Your task to perform on an android device: Empty the shopping cart on newegg. Search for macbook pro on newegg, select the first entry, add it to the cart, then select checkout. Image 0: 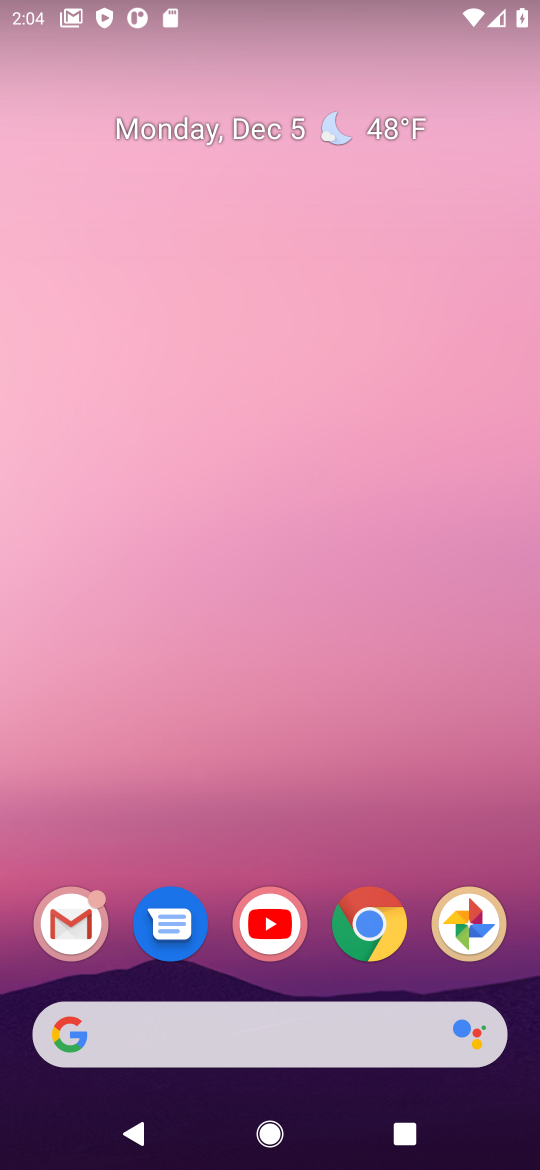
Step 0: click (351, 1042)
Your task to perform on an android device: Empty the shopping cart on newegg. Search for macbook pro on newegg, select the first entry, add it to the cart, then select checkout. Image 1: 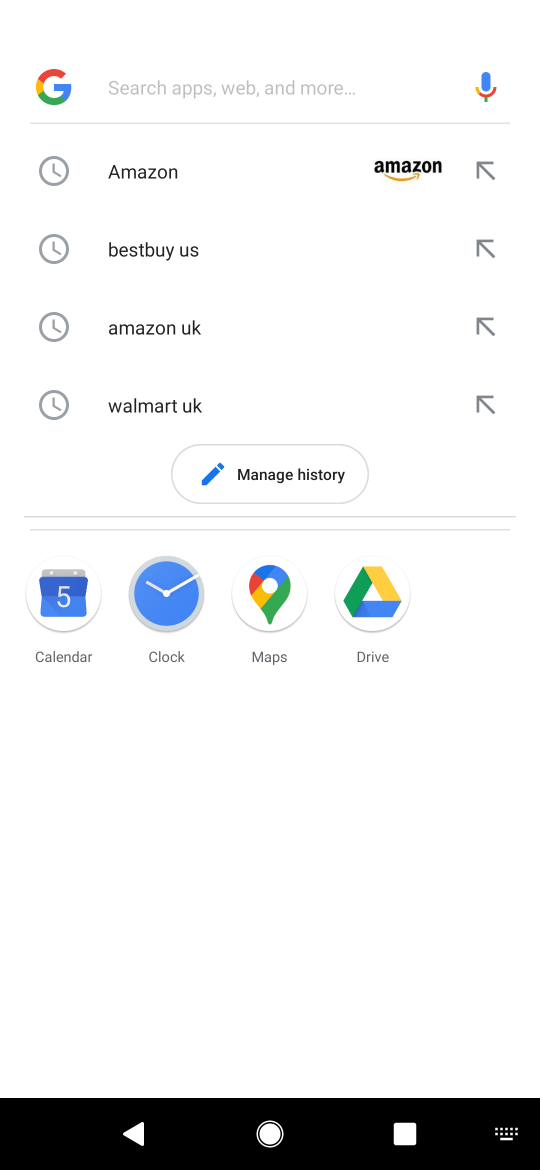
Step 1: type "newegg"
Your task to perform on an android device: Empty the shopping cart on newegg. Search for macbook pro on newegg, select the first entry, add it to the cart, then select checkout. Image 2: 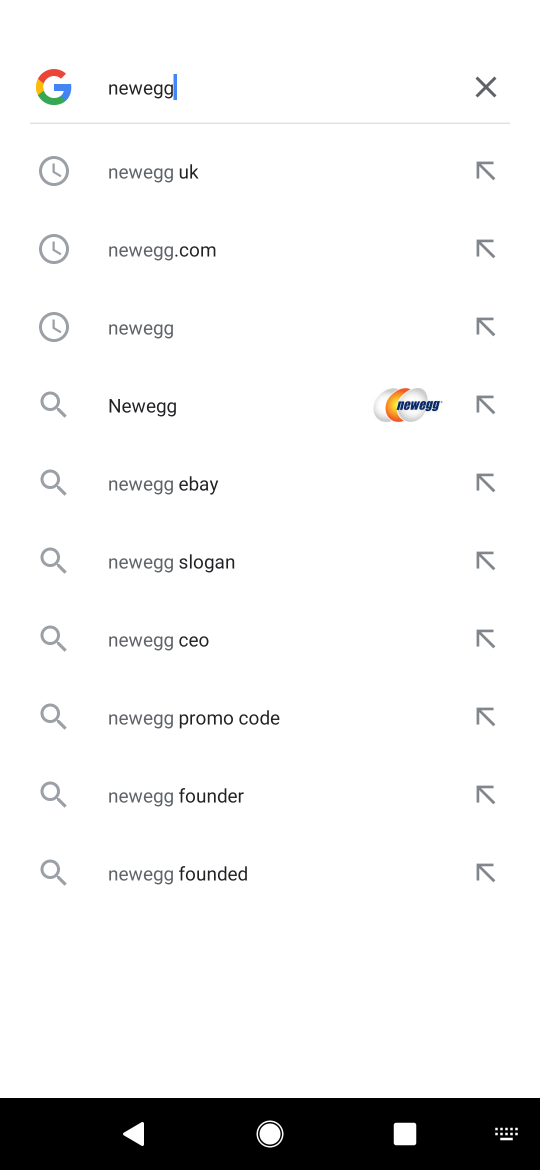
Step 2: click (274, 260)
Your task to perform on an android device: Empty the shopping cart on newegg. Search for macbook pro on newegg, select the first entry, add it to the cart, then select checkout. Image 3: 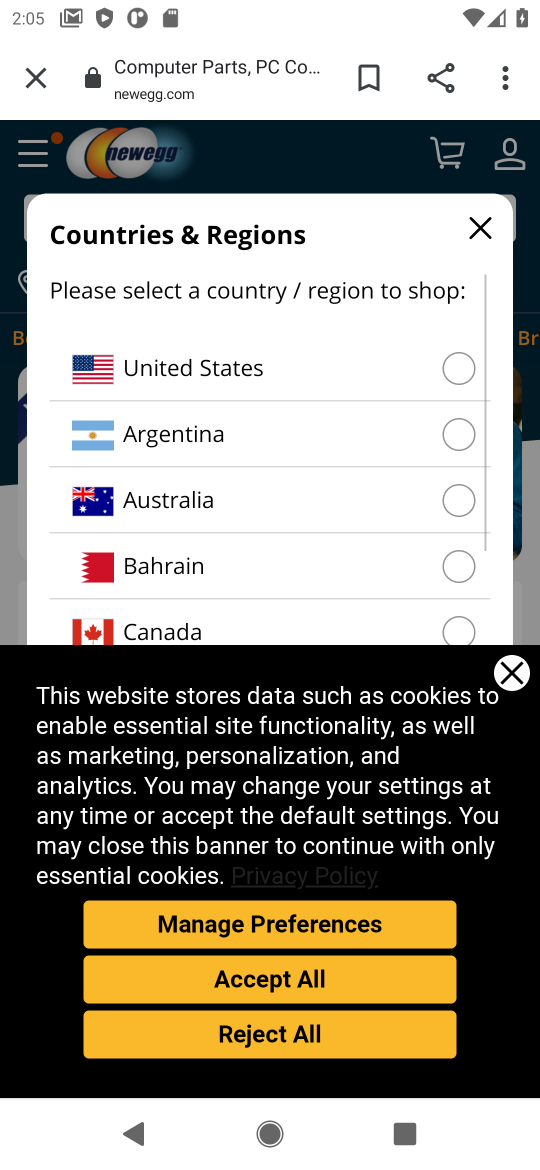
Step 3: click (294, 358)
Your task to perform on an android device: Empty the shopping cart on newegg. Search for macbook pro on newegg, select the first entry, add it to the cart, then select checkout. Image 4: 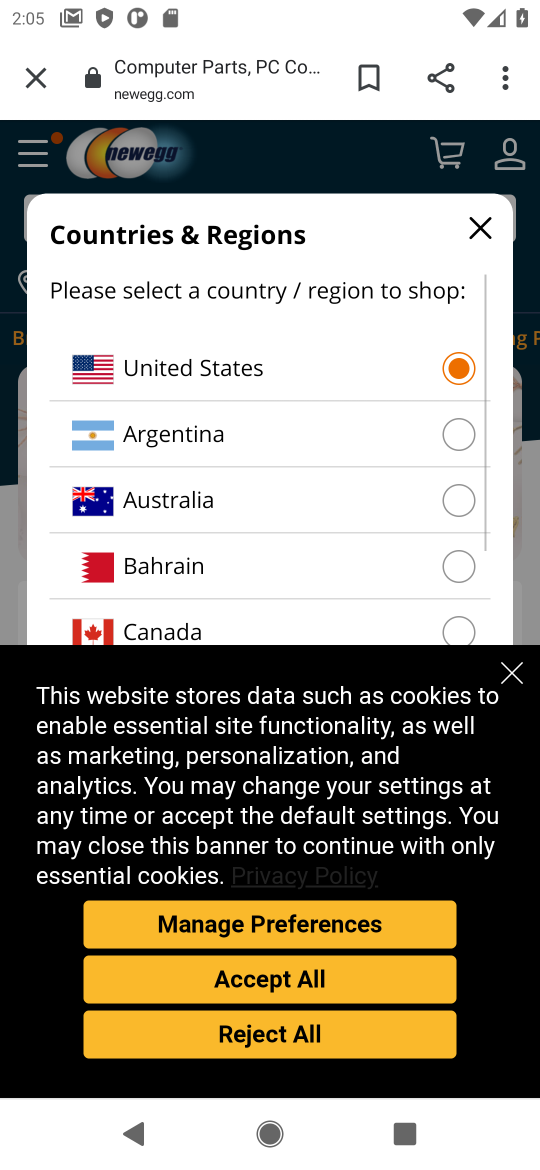
Step 4: click (370, 981)
Your task to perform on an android device: Empty the shopping cart on newegg. Search for macbook pro on newegg, select the first entry, add it to the cart, then select checkout. Image 5: 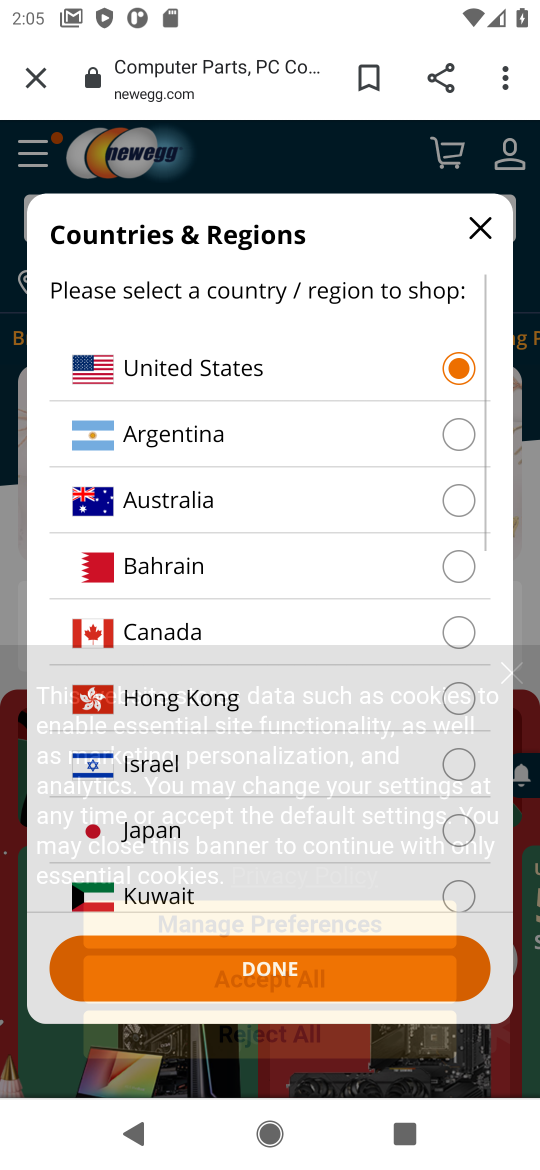
Step 5: task complete